Your task to perform on an android device: Find coffee shops on Maps Image 0: 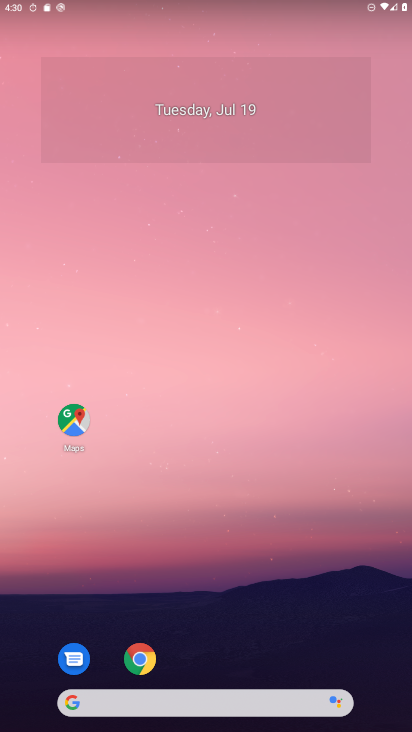
Step 0: drag from (281, 618) to (383, 32)
Your task to perform on an android device: Find coffee shops on Maps Image 1: 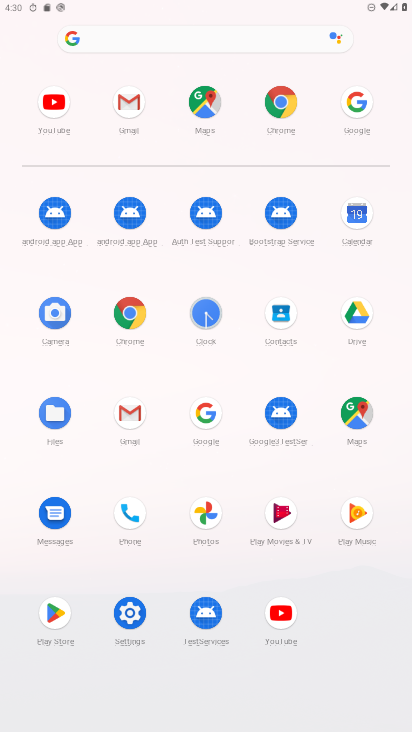
Step 1: click (200, 107)
Your task to perform on an android device: Find coffee shops on Maps Image 2: 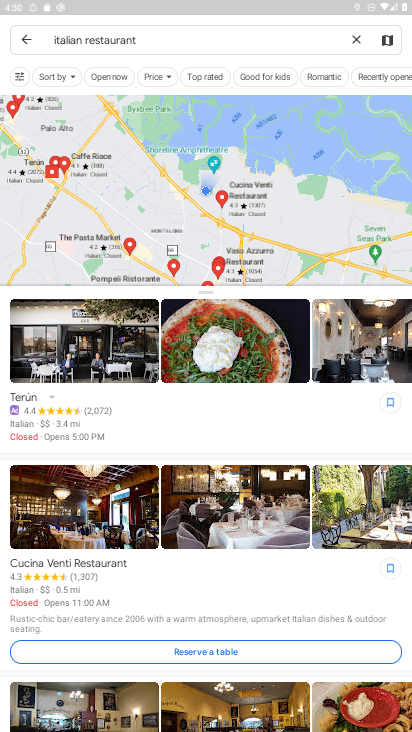
Step 2: click (27, 45)
Your task to perform on an android device: Find coffee shops on Maps Image 3: 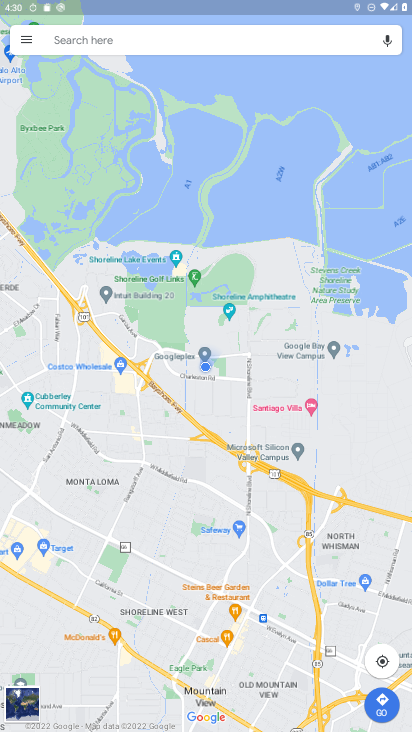
Step 3: click (87, 39)
Your task to perform on an android device: Find coffee shops on Maps Image 4: 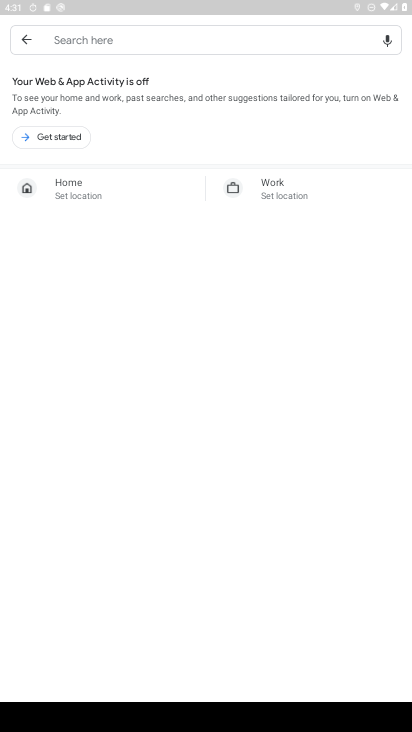
Step 4: type "coffee"
Your task to perform on an android device: Find coffee shops on Maps Image 5: 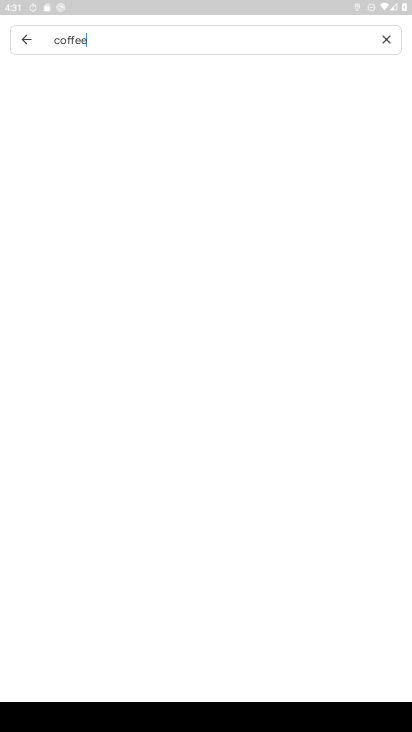
Step 5: press enter
Your task to perform on an android device: Find coffee shops on Maps Image 6: 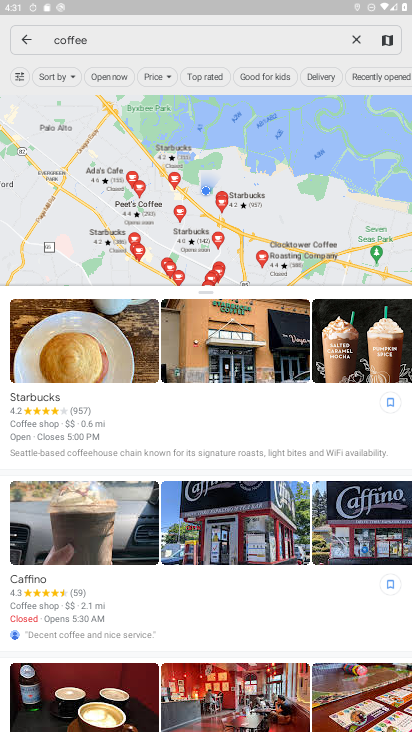
Step 6: task complete